Your task to perform on an android device: Search for the best rated phone case for the iPhone 8. Image 0: 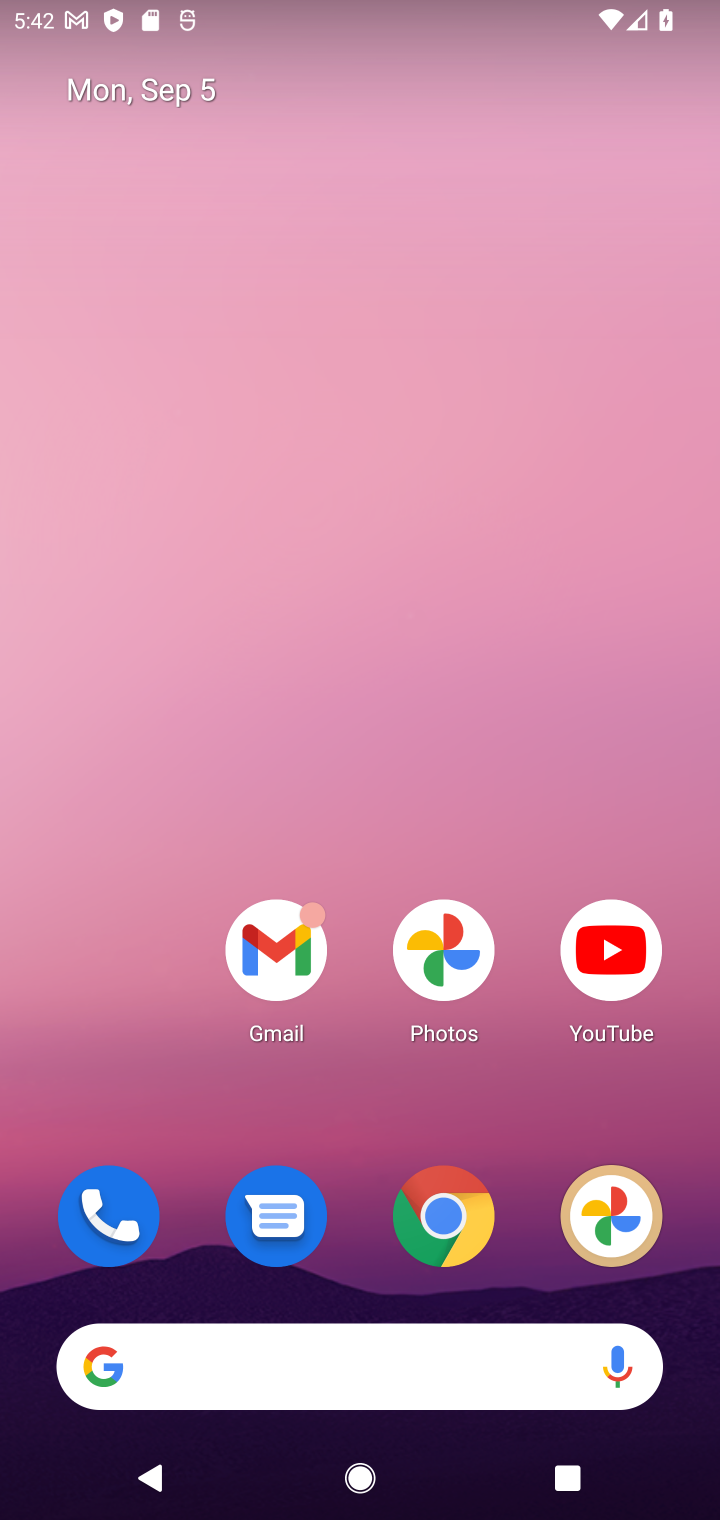
Step 0: click (449, 1233)
Your task to perform on an android device: Search for the best rated phone case for the iPhone 8. Image 1: 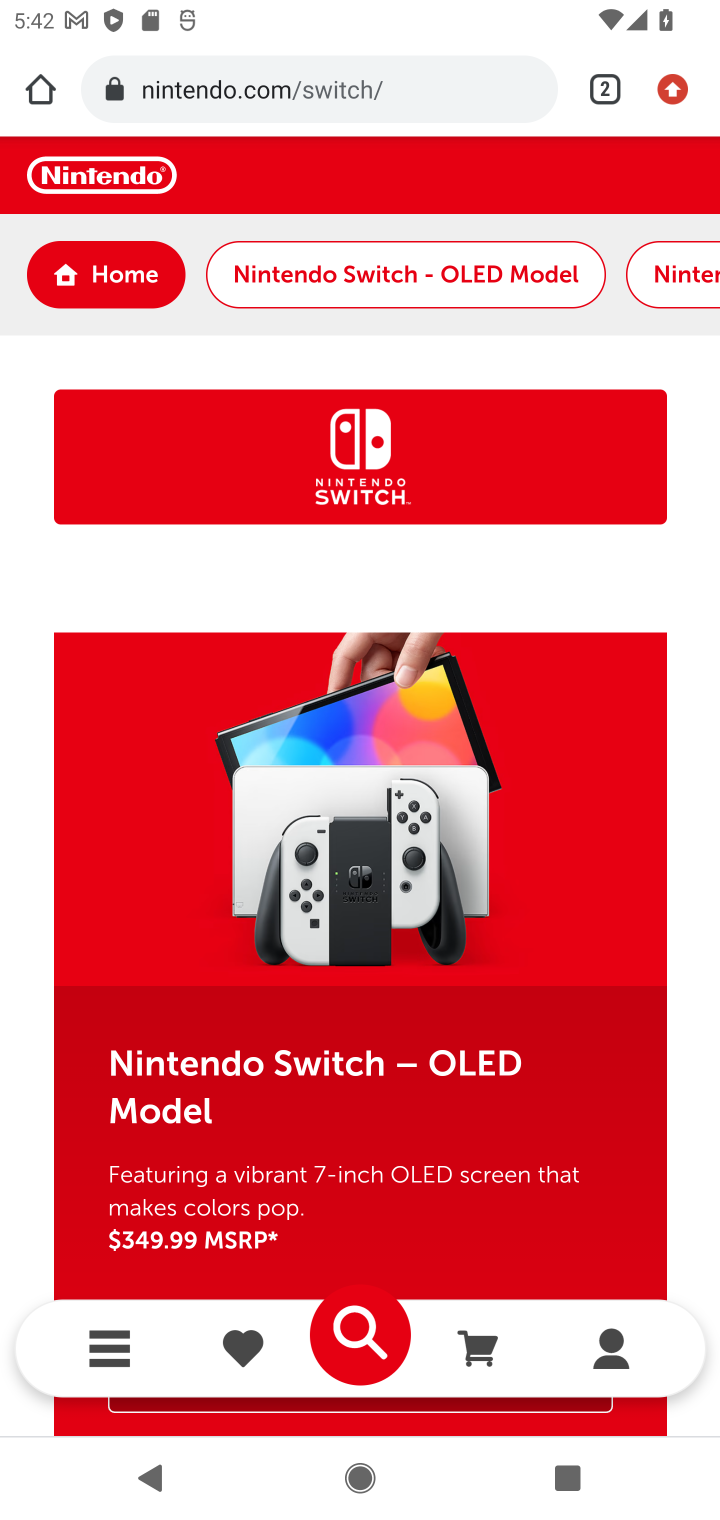
Step 1: click (365, 88)
Your task to perform on an android device: Search for the best rated phone case for the iPhone 8. Image 2: 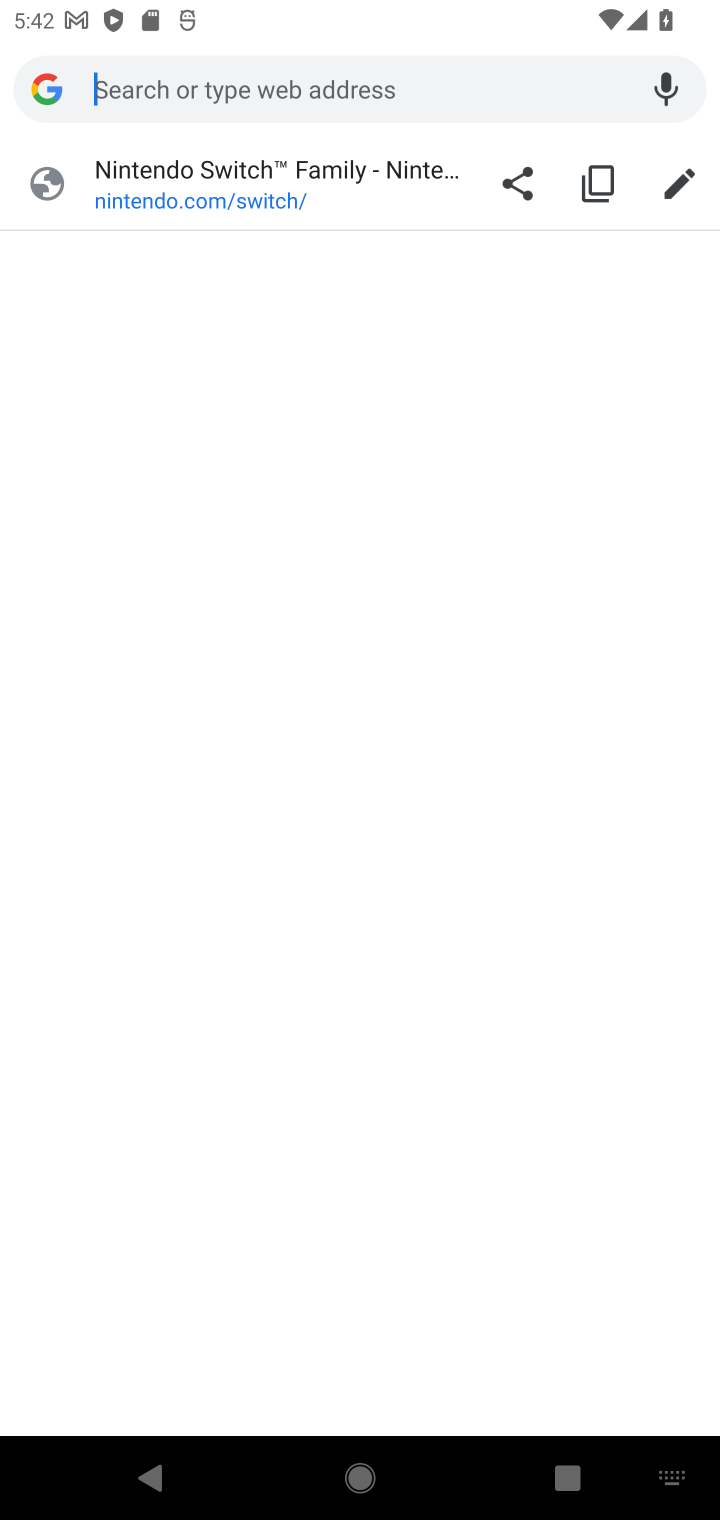
Step 2: type "phone case for the iphone8"
Your task to perform on an android device: Search for the best rated phone case for the iPhone 8. Image 3: 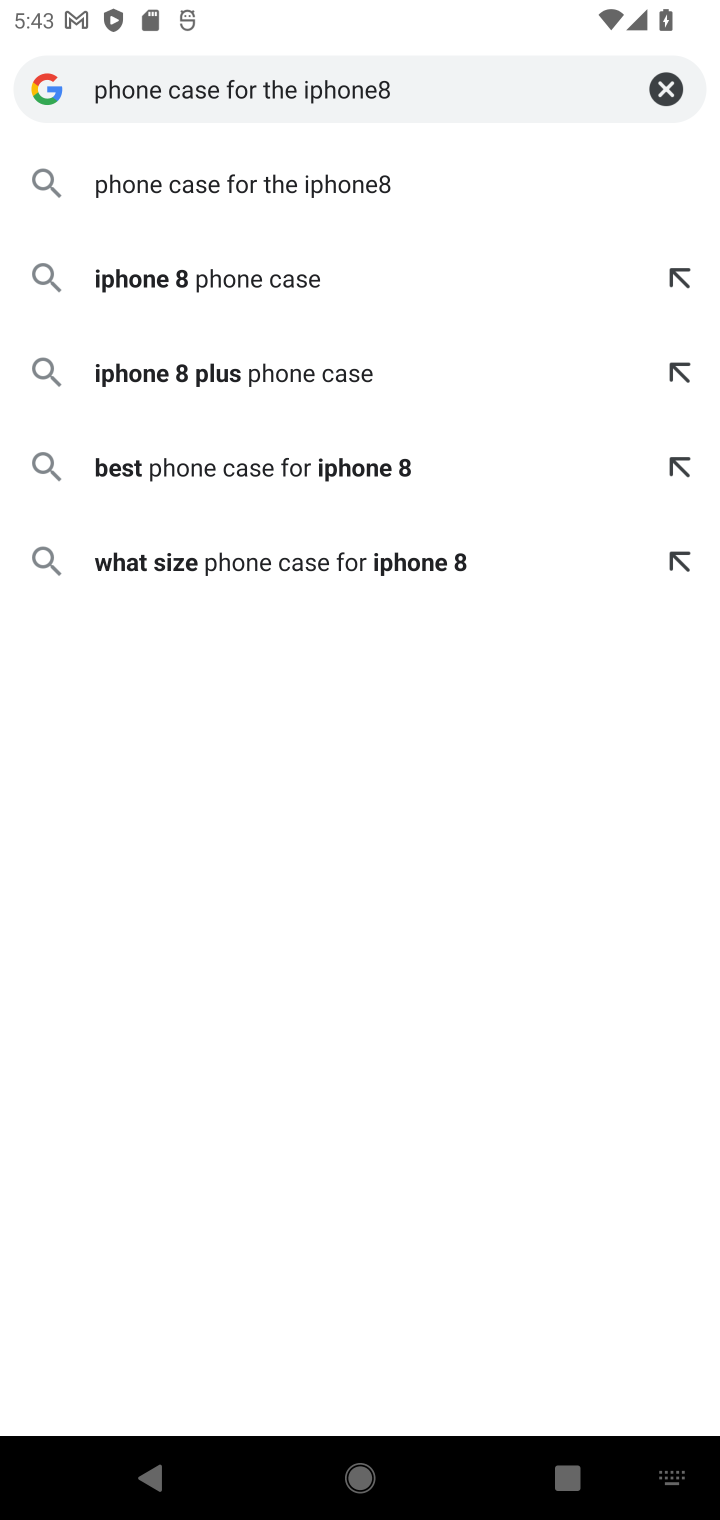
Step 3: click (247, 196)
Your task to perform on an android device: Search for the best rated phone case for the iPhone 8. Image 4: 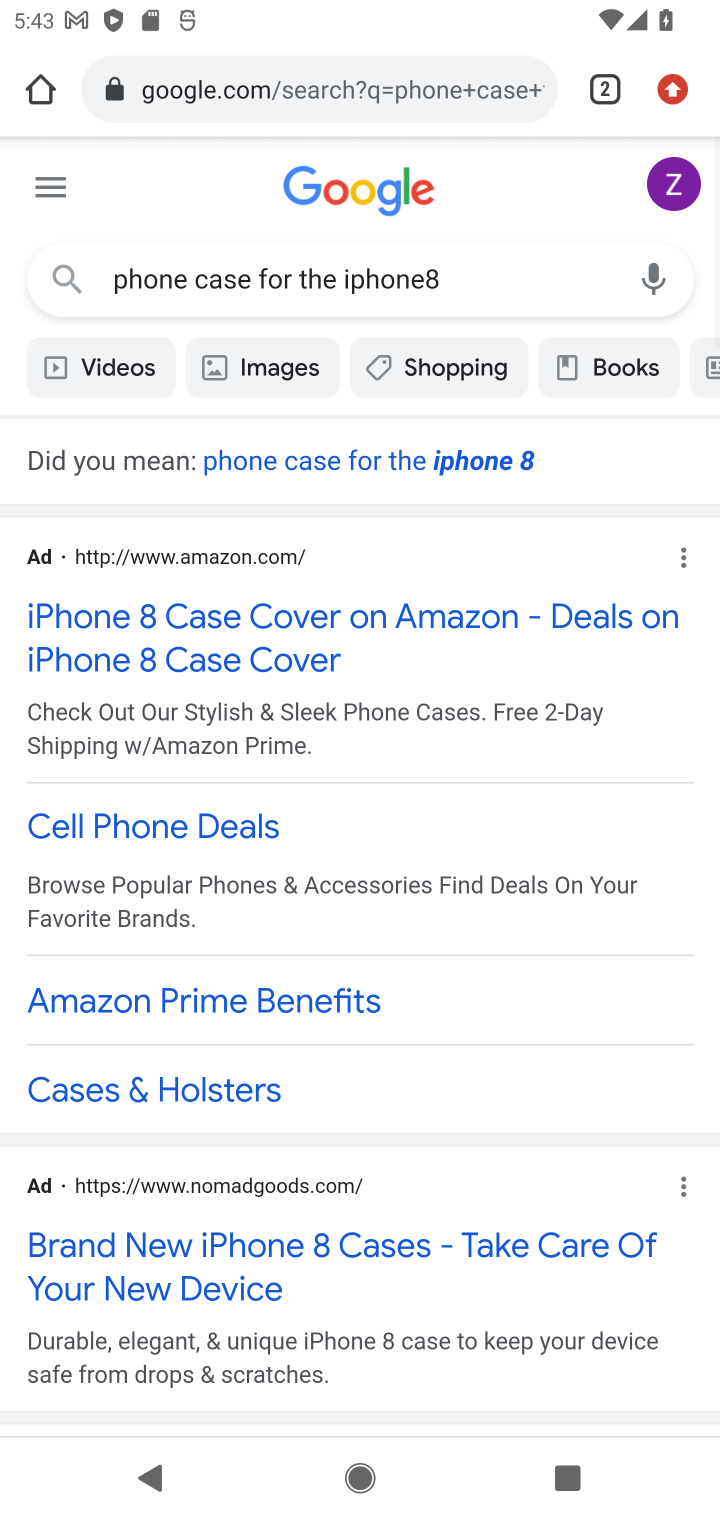
Step 4: drag from (305, 1298) to (310, 598)
Your task to perform on an android device: Search for the best rated phone case for the iPhone 8. Image 5: 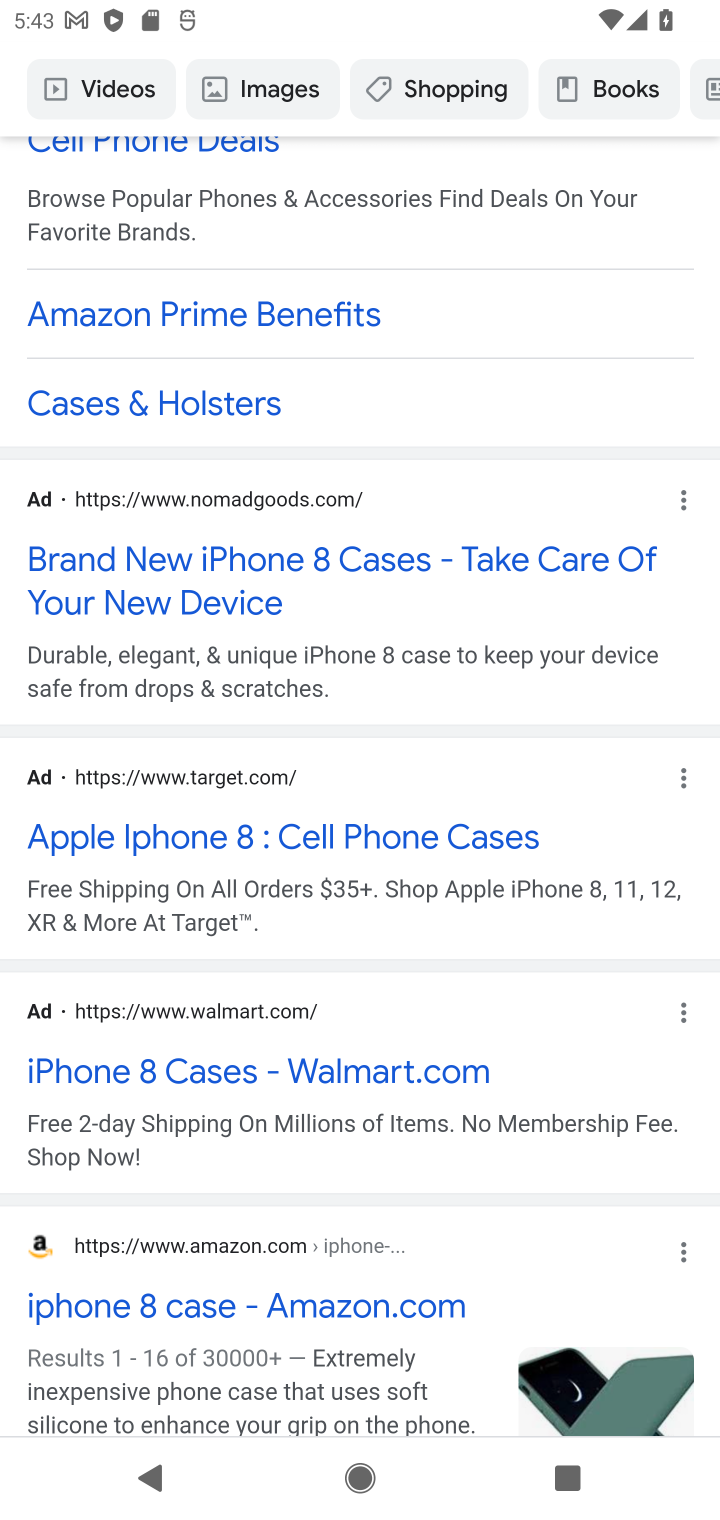
Step 5: click (135, 1082)
Your task to perform on an android device: Search for the best rated phone case for the iPhone 8. Image 6: 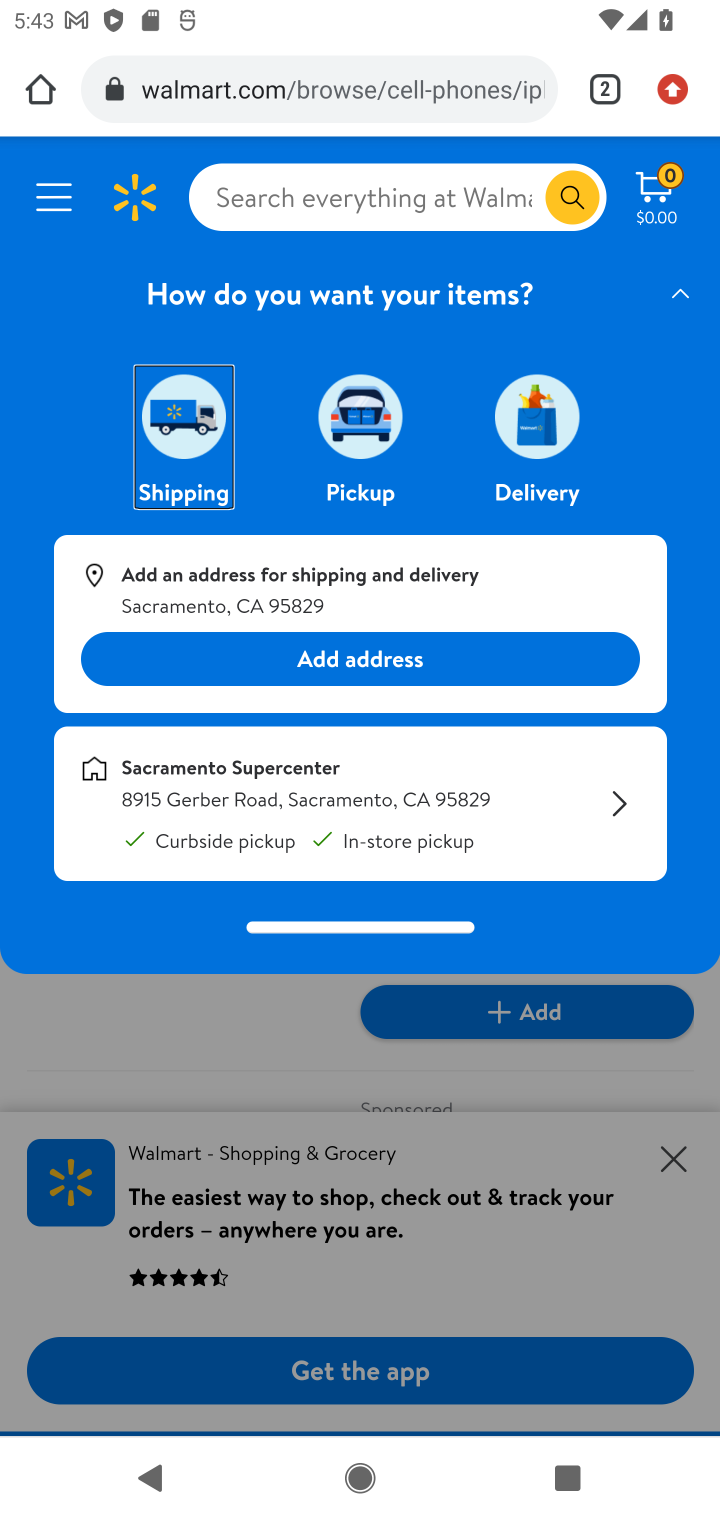
Step 6: click (676, 1164)
Your task to perform on an android device: Search for the best rated phone case for the iPhone 8. Image 7: 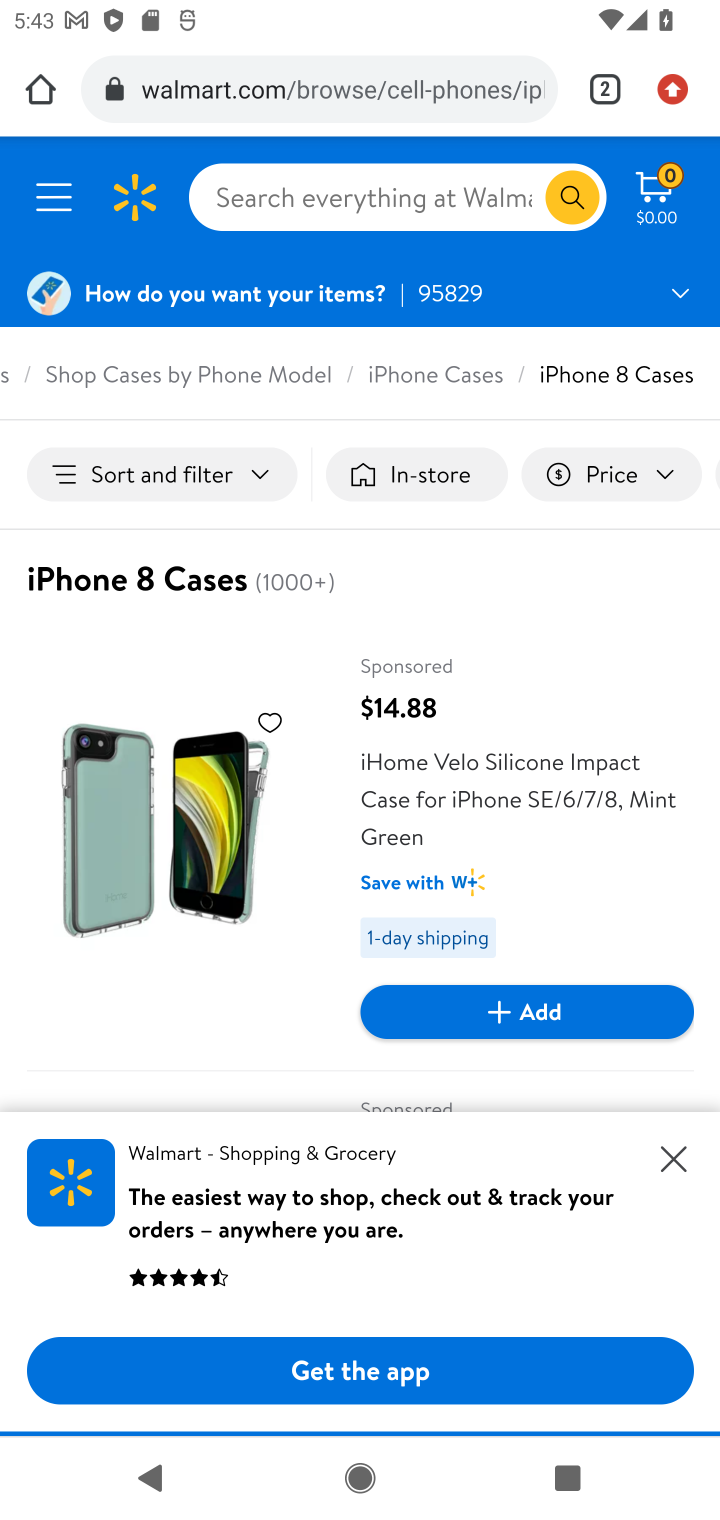
Step 7: click (676, 1166)
Your task to perform on an android device: Search for the best rated phone case for the iPhone 8. Image 8: 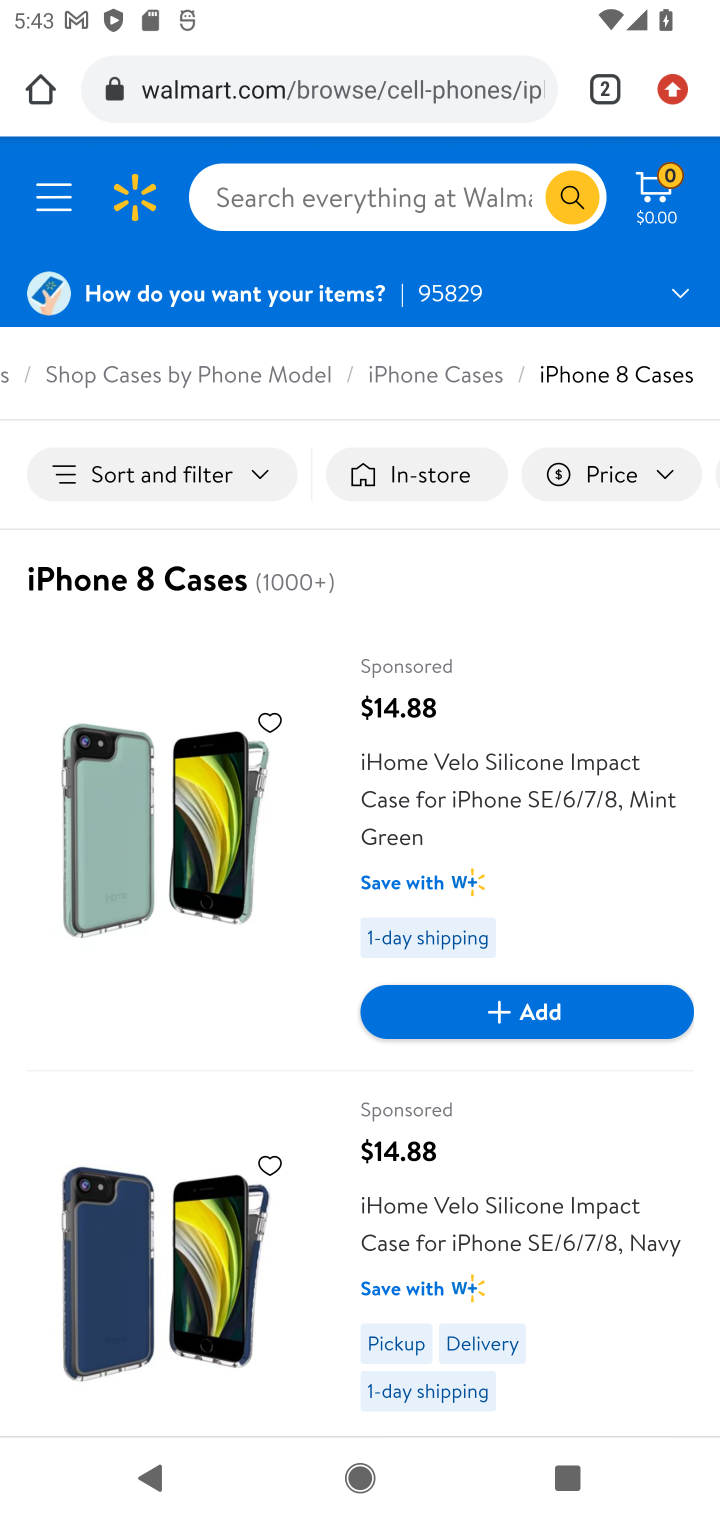
Step 8: task complete